Your task to perform on an android device: toggle notification dots Image 0: 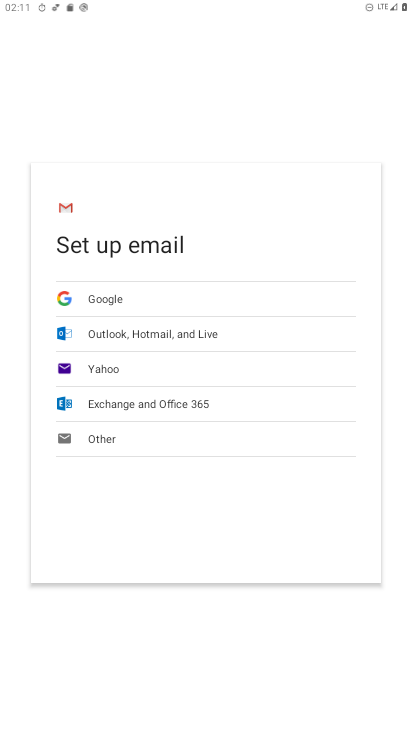
Step 0: press home button
Your task to perform on an android device: toggle notification dots Image 1: 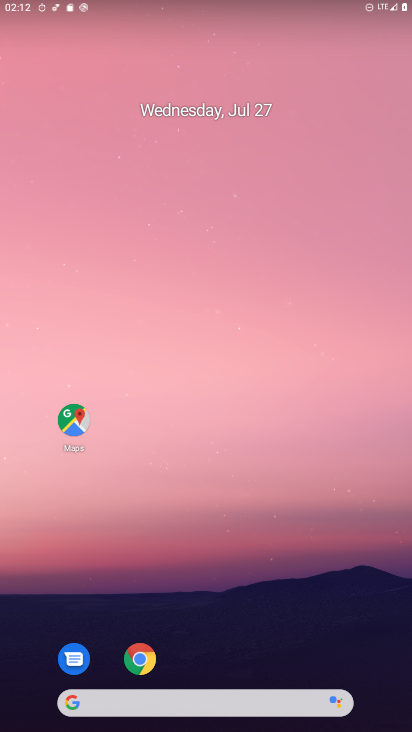
Step 1: drag from (230, 602) to (234, 88)
Your task to perform on an android device: toggle notification dots Image 2: 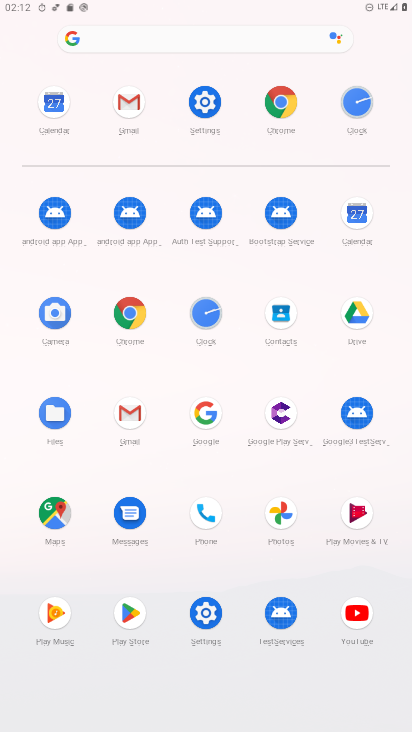
Step 2: click (212, 102)
Your task to perform on an android device: toggle notification dots Image 3: 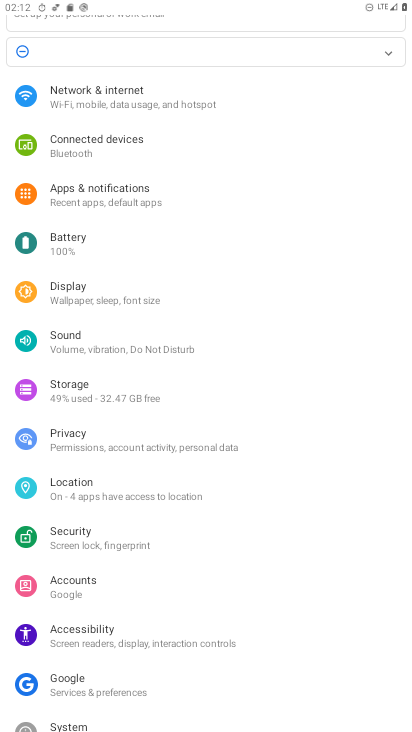
Step 3: click (129, 189)
Your task to perform on an android device: toggle notification dots Image 4: 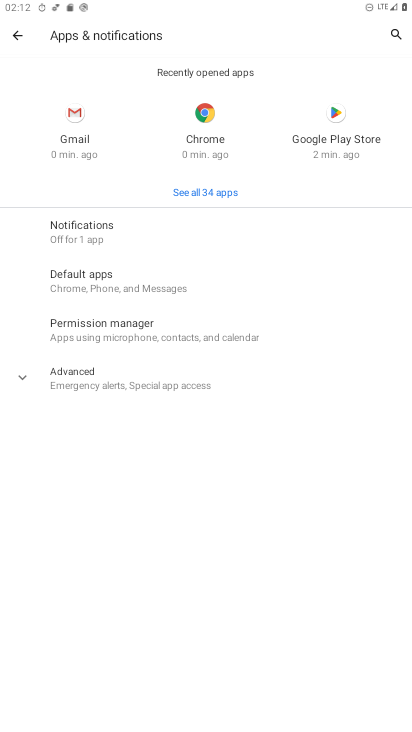
Step 4: click (104, 221)
Your task to perform on an android device: toggle notification dots Image 5: 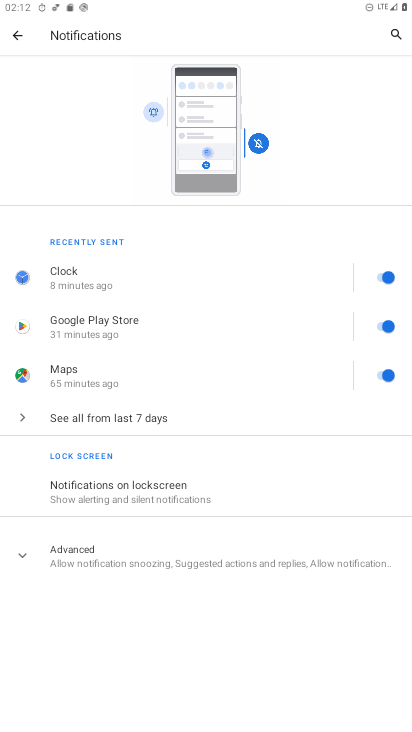
Step 5: click (87, 559)
Your task to perform on an android device: toggle notification dots Image 6: 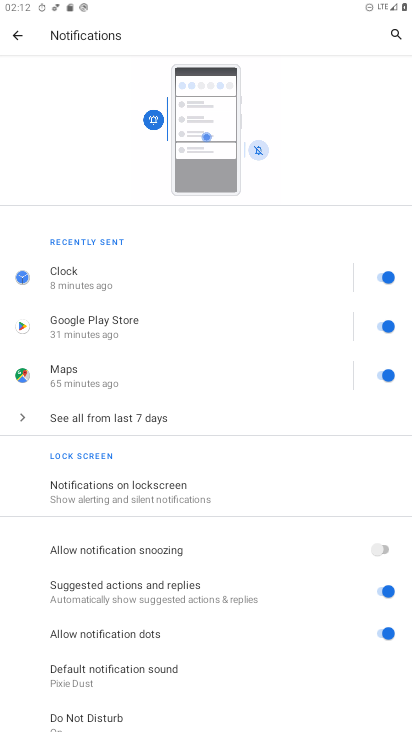
Step 6: click (388, 634)
Your task to perform on an android device: toggle notification dots Image 7: 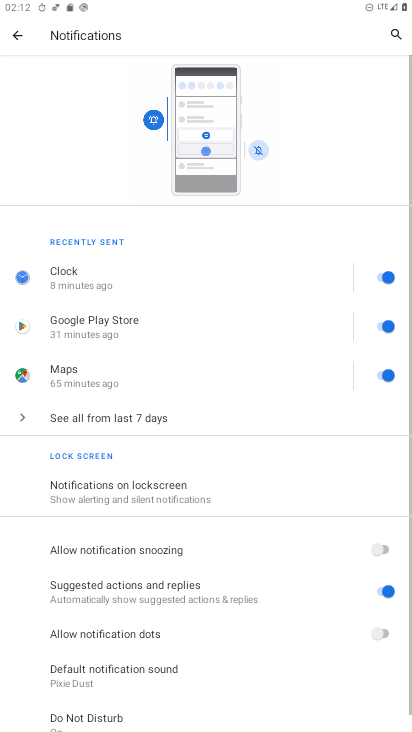
Step 7: task complete